Your task to perform on an android device: turn on wifi Image 0: 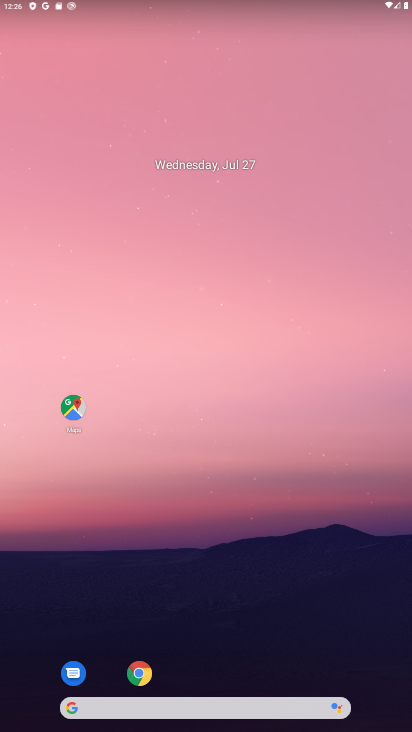
Step 0: drag from (246, 678) to (192, 150)
Your task to perform on an android device: turn on wifi Image 1: 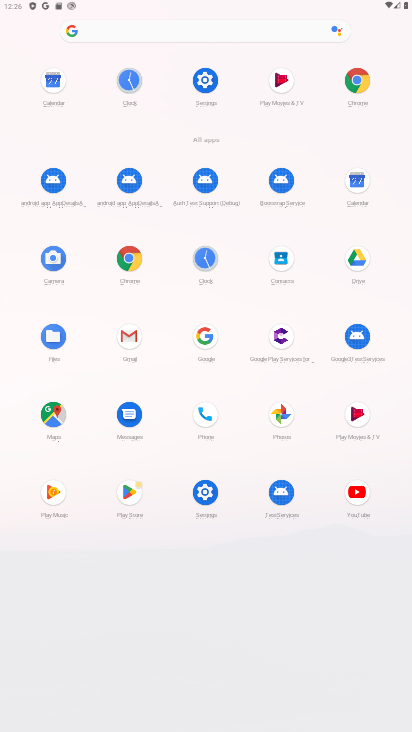
Step 1: click (203, 81)
Your task to perform on an android device: turn on wifi Image 2: 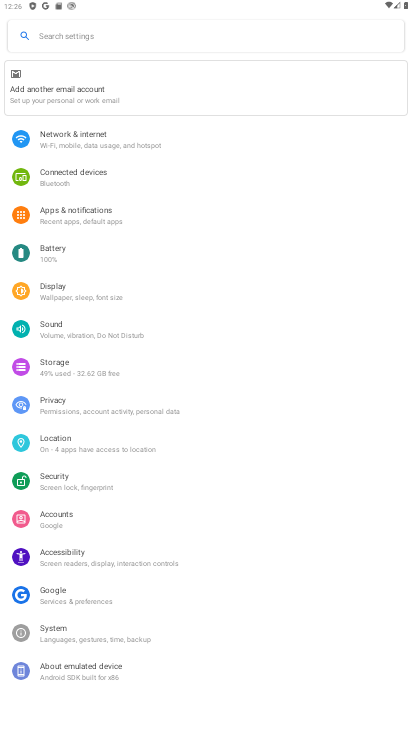
Step 2: click (75, 146)
Your task to perform on an android device: turn on wifi Image 3: 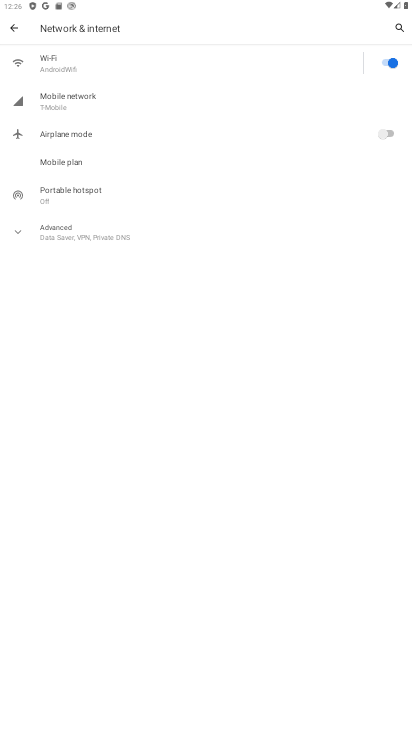
Step 3: task complete